Your task to perform on an android device: Open my contact list Image 0: 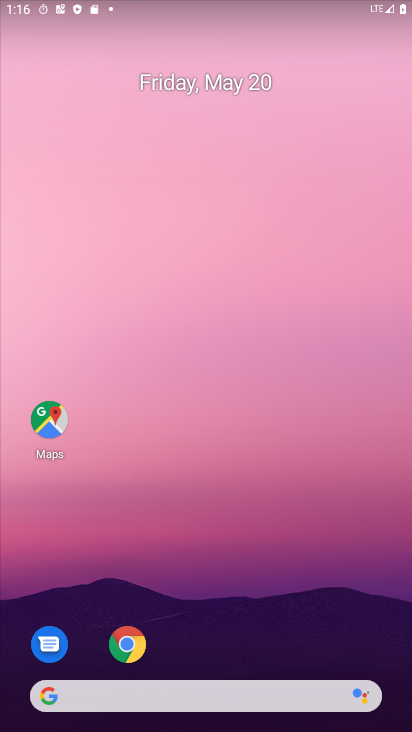
Step 0: drag from (281, 538) to (294, 5)
Your task to perform on an android device: Open my contact list Image 1: 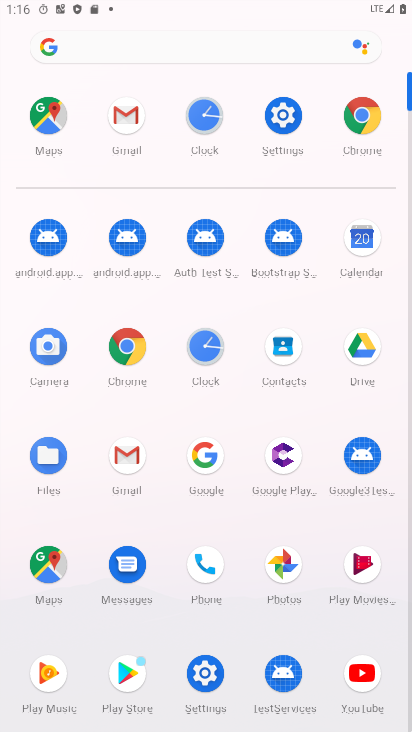
Step 1: click (191, 562)
Your task to perform on an android device: Open my contact list Image 2: 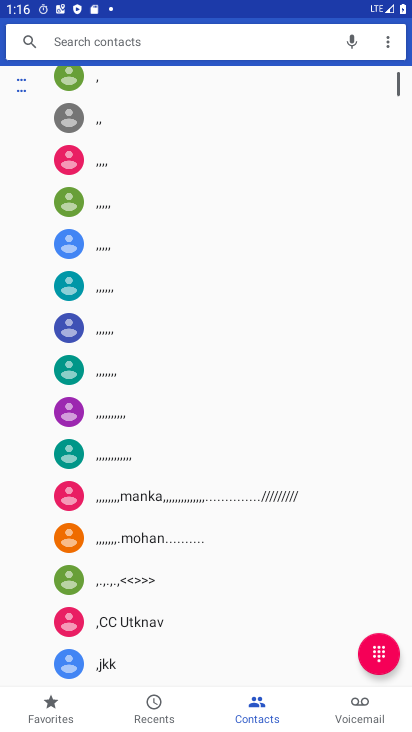
Step 2: task complete